Your task to perform on an android device: check android version Image 0: 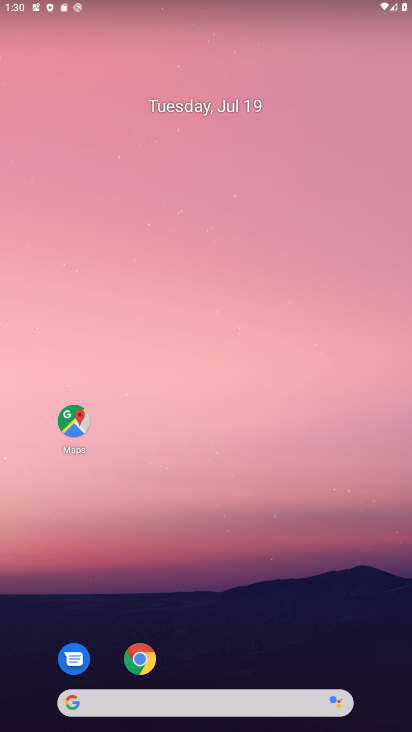
Step 0: press home button
Your task to perform on an android device: check android version Image 1: 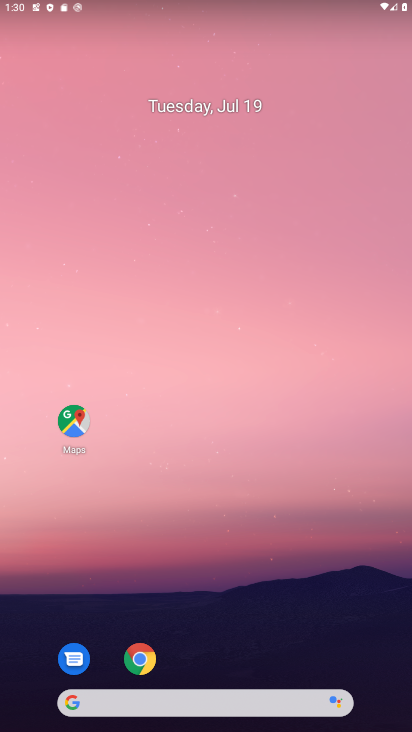
Step 1: drag from (271, 640) to (217, 109)
Your task to perform on an android device: check android version Image 2: 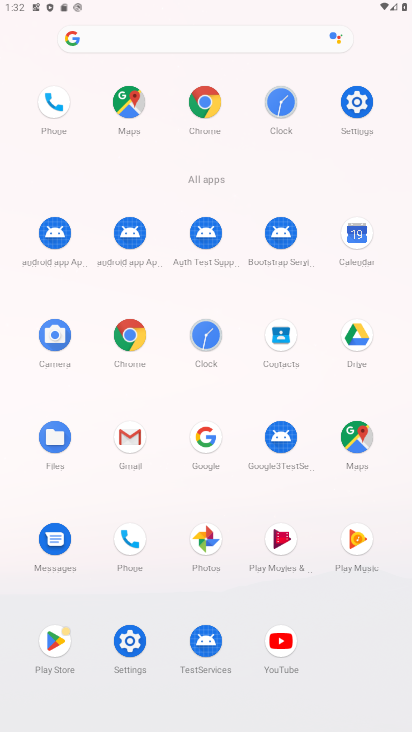
Step 2: click (139, 667)
Your task to perform on an android device: check android version Image 3: 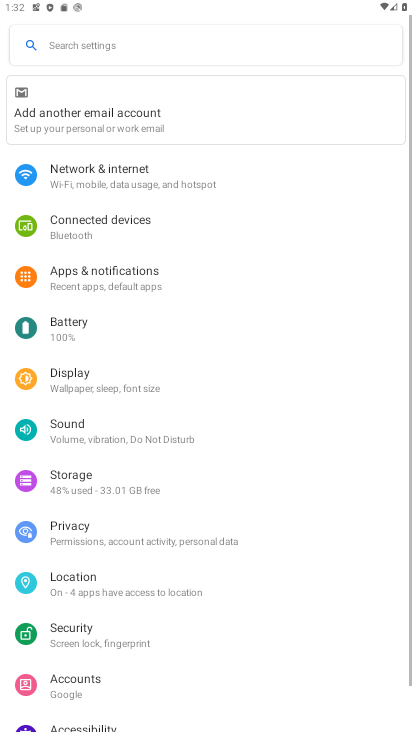
Step 3: drag from (181, 579) to (202, 255)
Your task to perform on an android device: check android version Image 4: 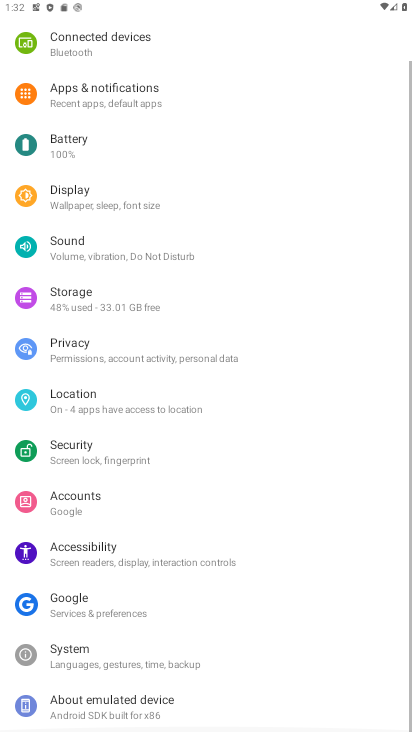
Step 4: drag from (282, 570) to (220, 146)
Your task to perform on an android device: check android version Image 5: 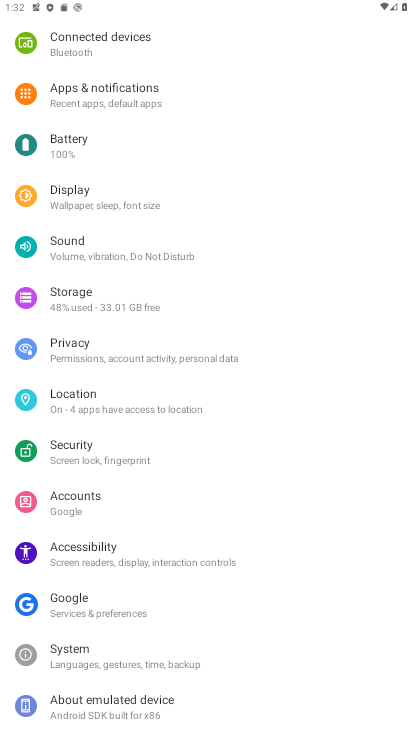
Step 5: click (128, 701)
Your task to perform on an android device: check android version Image 6: 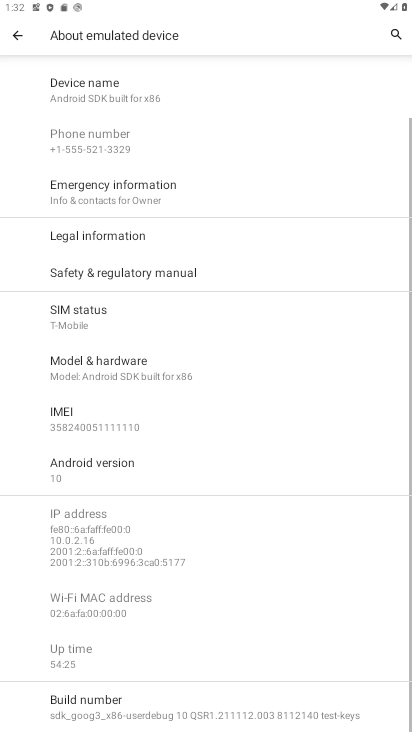
Step 6: click (50, 465)
Your task to perform on an android device: check android version Image 7: 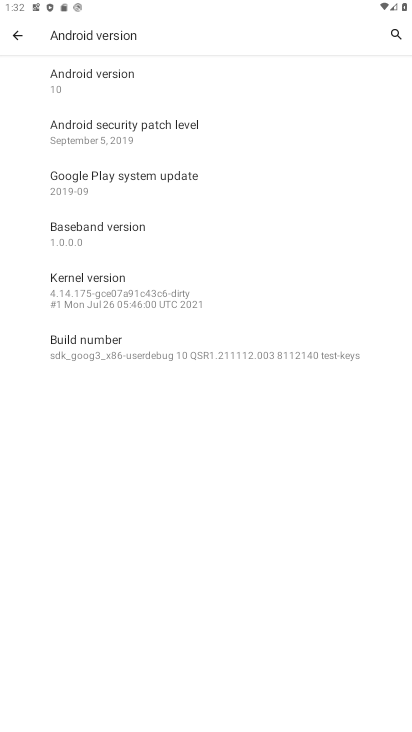
Step 7: task complete